Your task to perform on an android device: toggle notifications settings in the gmail app Image 0: 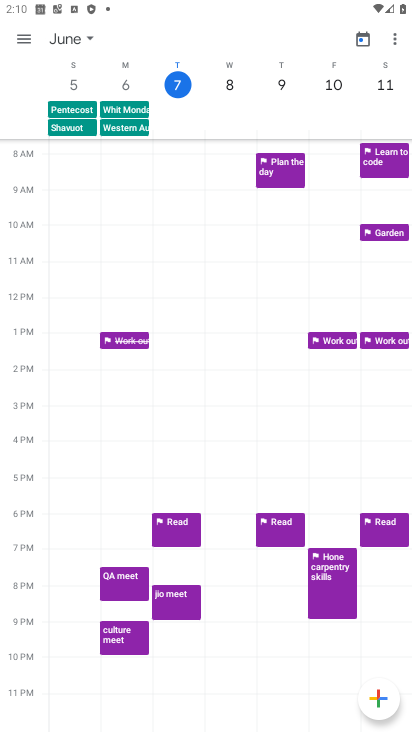
Step 0: press home button
Your task to perform on an android device: toggle notifications settings in the gmail app Image 1: 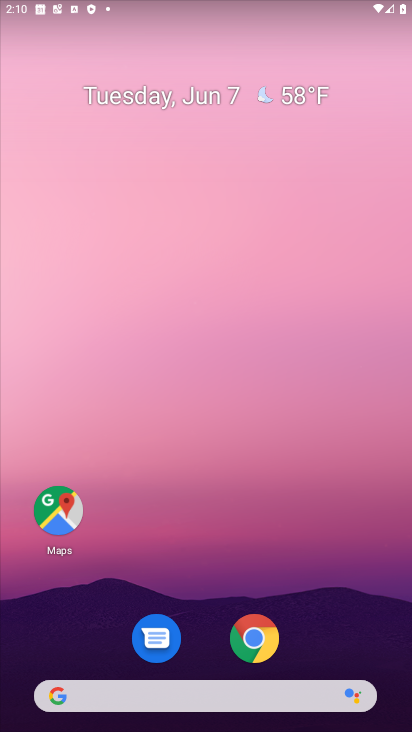
Step 1: drag from (99, 643) to (7, 280)
Your task to perform on an android device: toggle notifications settings in the gmail app Image 2: 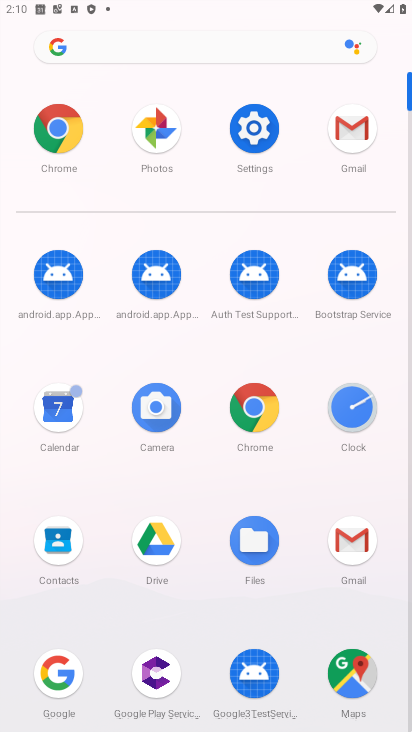
Step 2: click (351, 561)
Your task to perform on an android device: toggle notifications settings in the gmail app Image 3: 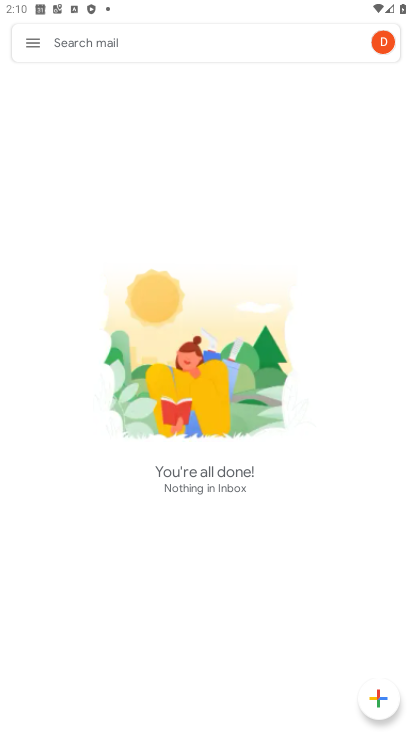
Step 3: click (30, 46)
Your task to perform on an android device: toggle notifications settings in the gmail app Image 4: 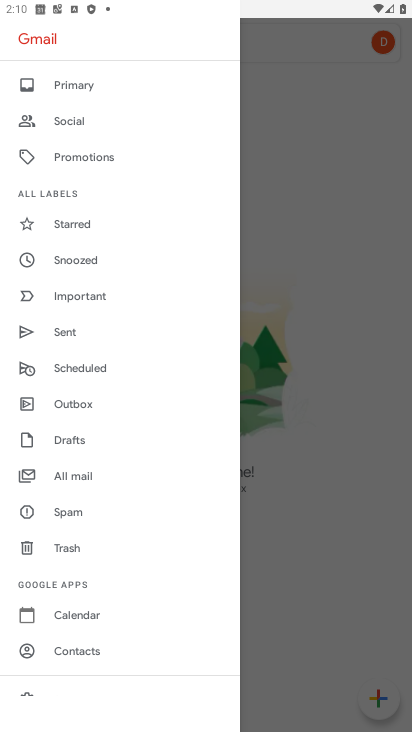
Step 4: drag from (117, 662) to (51, 305)
Your task to perform on an android device: toggle notifications settings in the gmail app Image 5: 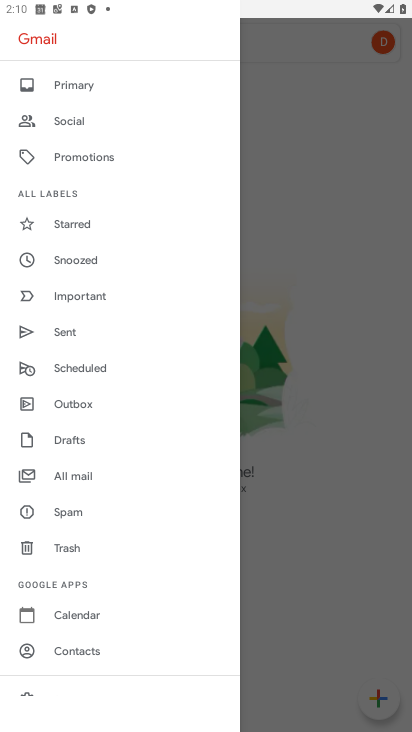
Step 5: drag from (67, 654) to (57, 333)
Your task to perform on an android device: toggle notifications settings in the gmail app Image 6: 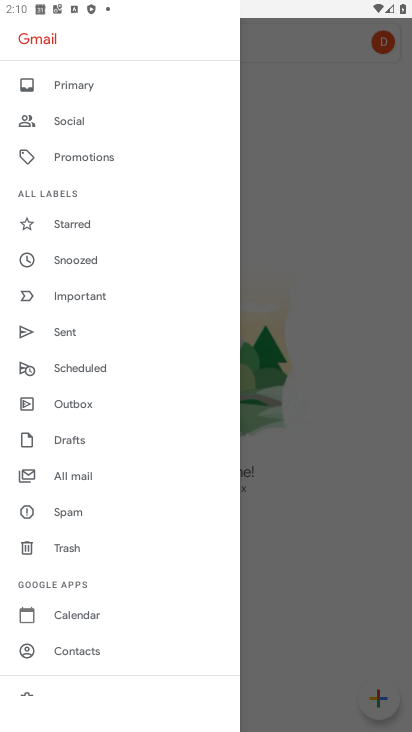
Step 6: drag from (93, 670) to (9, 389)
Your task to perform on an android device: toggle notifications settings in the gmail app Image 7: 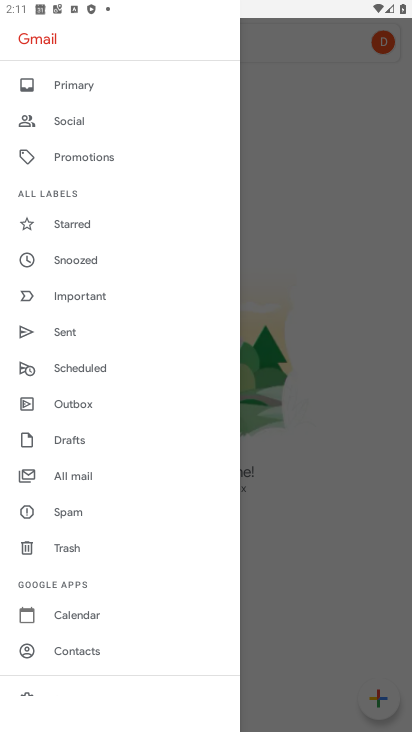
Step 7: drag from (61, 641) to (74, 350)
Your task to perform on an android device: toggle notifications settings in the gmail app Image 8: 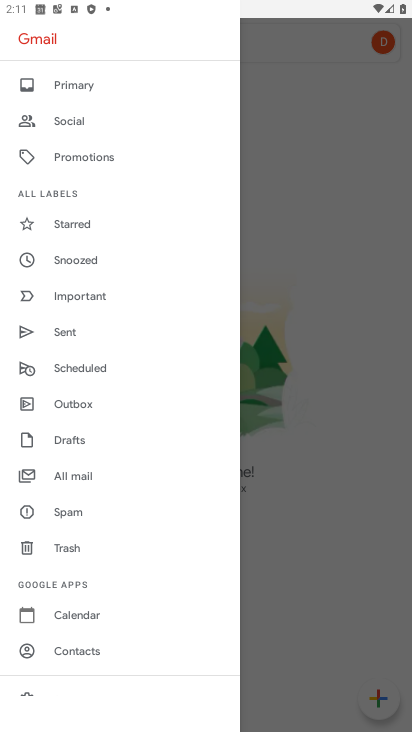
Step 8: drag from (120, 717) to (82, 395)
Your task to perform on an android device: toggle notifications settings in the gmail app Image 9: 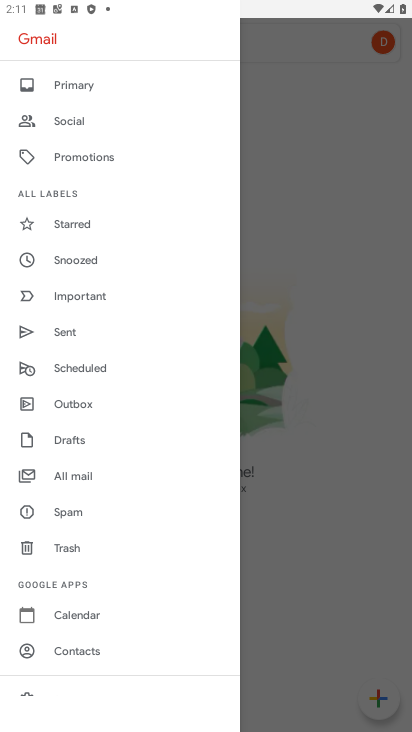
Step 9: drag from (80, 663) to (96, 432)
Your task to perform on an android device: toggle notifications settings in the gmail app Image 10: 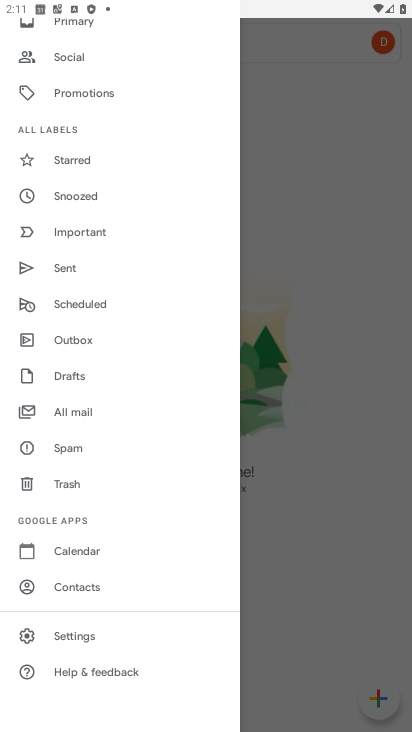
Step 10: click (71, 637)
Your task to perform on an android device: toggle notifications settings in the gmail app Image 11: 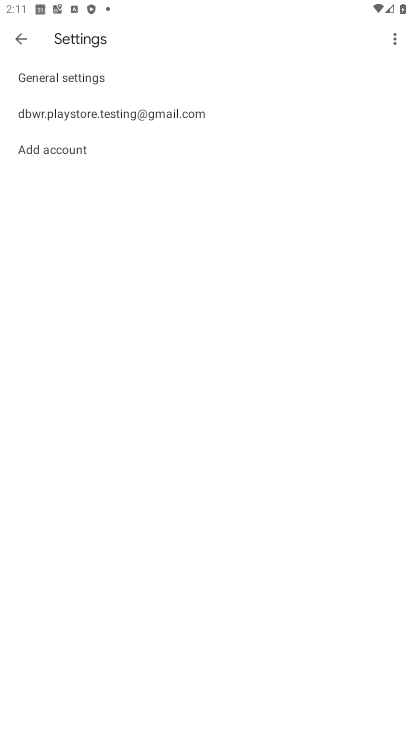
Step 11: click (30, 112)
Your task to perform on an android device: toggle notifications settings in the gmail app Image 12: 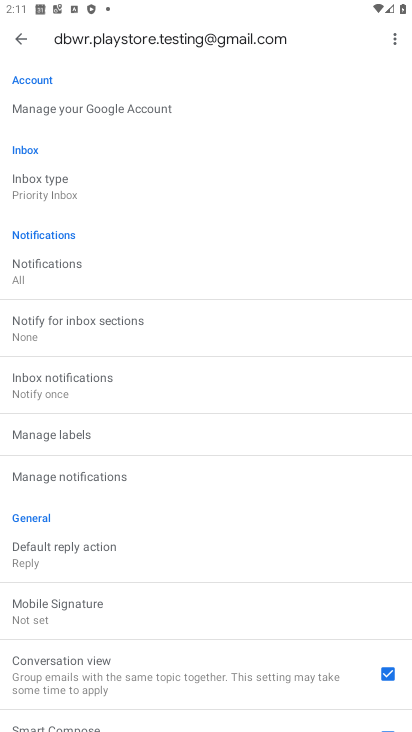
Step 12: click (33, 485)
Your task to perform on an android device: toggle notifications settings in the gmail app Image 13: 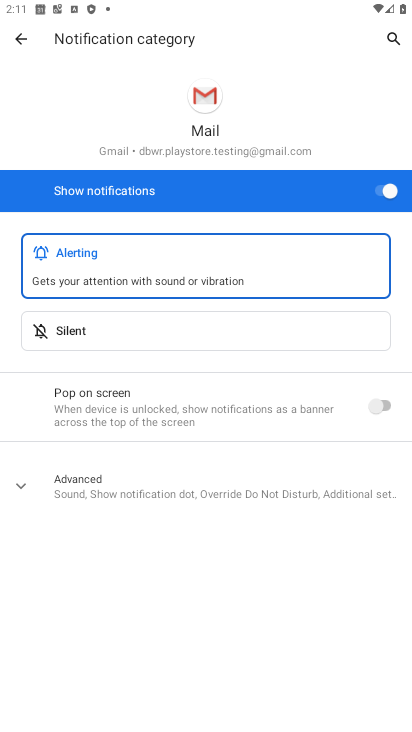
Step 13: click (378, 195)
Your task to perform on an android device: toggle notifications settings in the gmail app Image 14: 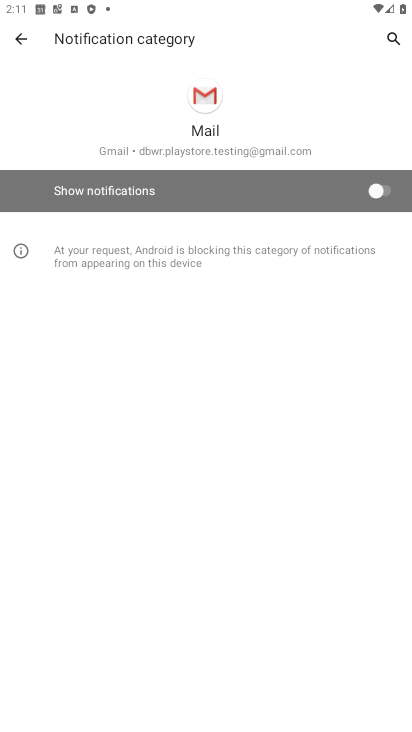
Step 14: task complete